Your task to perform on an android device: Open Youtube and go to "Your channel" Image 0: 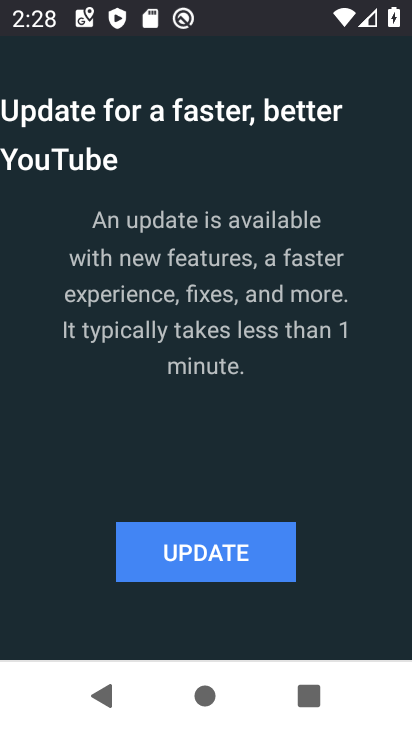
Step 0: press home button
Your task to perform on an android device: Open Youtube and go to "Your channel" Image 1: 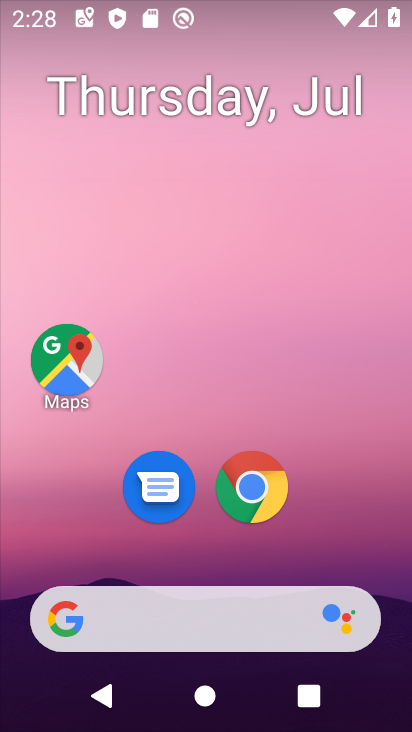
Step 1: drag from (365, 546) to (365, 92)
Your task to perform on an android device: Open Youtube and go to "Your channel" Image 2: 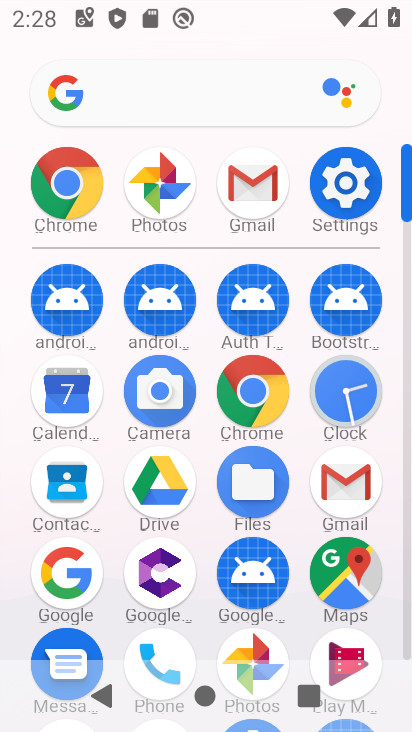
Step 2: drag from (377, 629) to (379, 330)
Your task to perform on an android device: Open Youtube and go to "Your channel" Image 3: 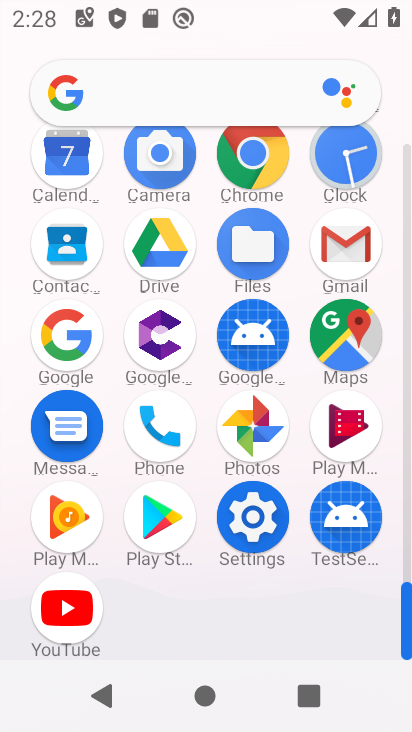
Step 3: click (79, 614)
Your task to perform on an android device: Open Youtube and go to "Your channel" Image 4: 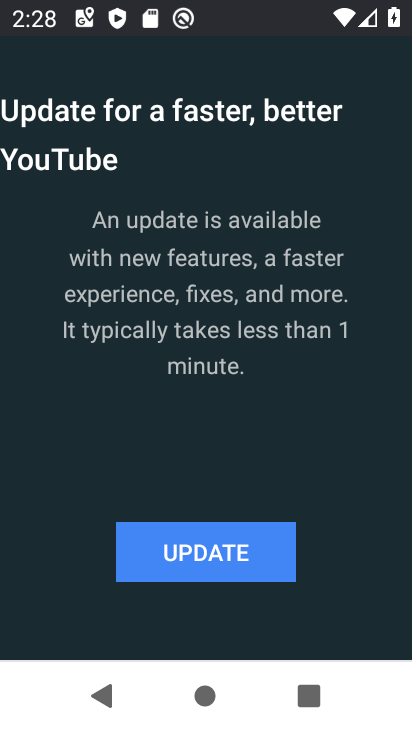
Step 4: click (162, 562)
Your task to perform on an android device: Open Youtube and go to "Your channel" Image 5: 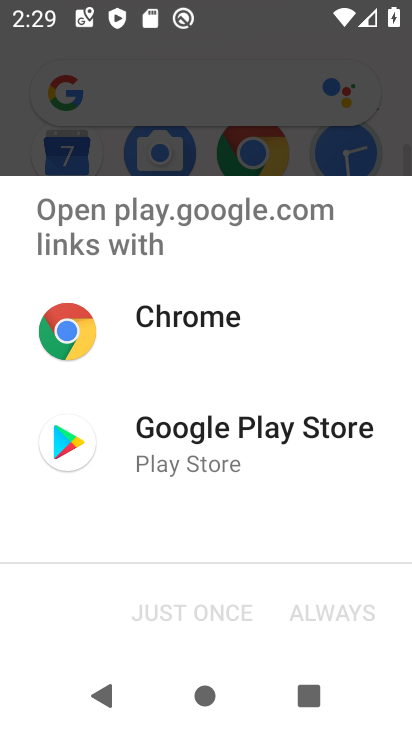
Step 5: click (205, 479)
Your task to perform on an android device: Open Youtube and go to "Your channel" Image 6: 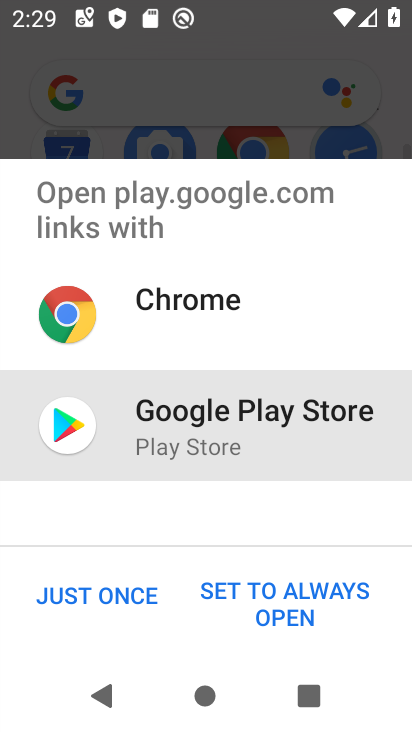
Step 6: click (133, 590)
Your task to perform on an android device: Open Youtube and go to "Your channel" Image 7: 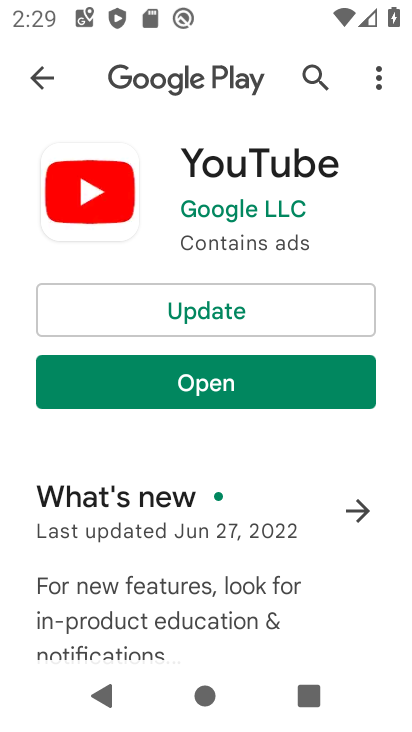
Step 7: click (226, 312)
Your task to perform on an android device: Open Youtube and go to "Your channel" Image 8: 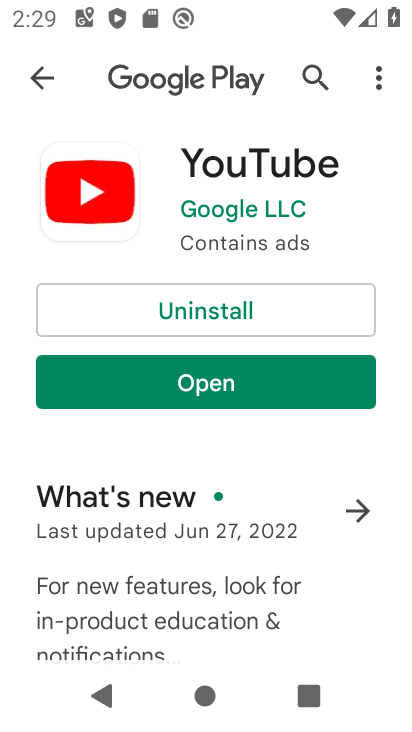
Step 8: click (280, 385)
Your task to perform on an android device: Open Youtube and go to "Your channel" Image 9: 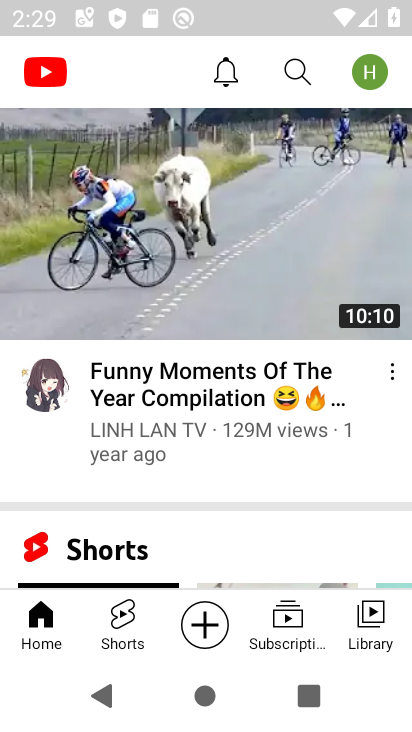
Step 9: click (365, 72)
Your task to perform on an android device: Open Youtube and go to "Your channel" Image 10: 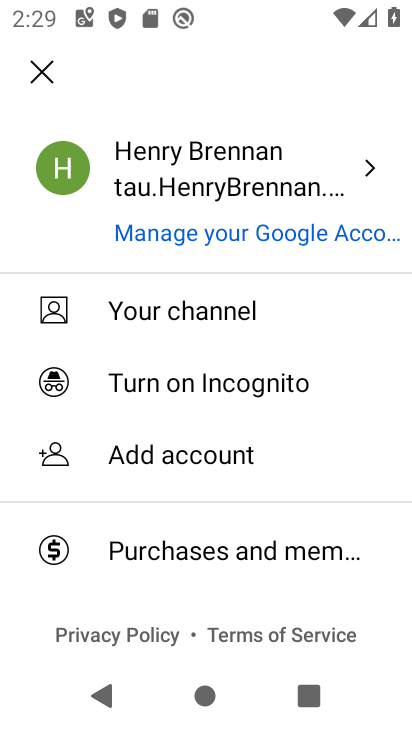
Step 10: click (293, 302)
Your task to perform on an android device: Open Youtube and go to "Your channel" Image 11: 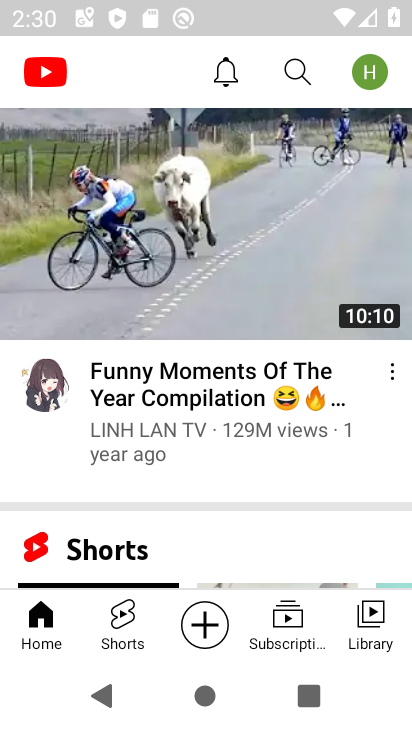
Step 11: task complete